Your task to perform on an android device: Set the phone to "Do not disturb". Image 0: 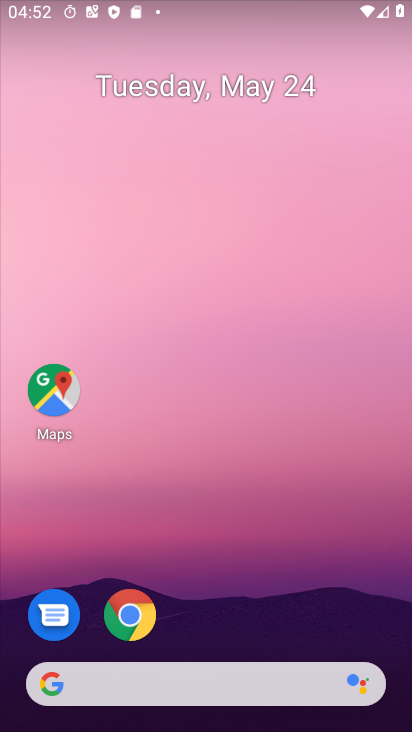
Step 0: drag from (172, 5) to (159, 378)
Your task to perform on an android device: Set the phone to "Do not disturb". Image 1: 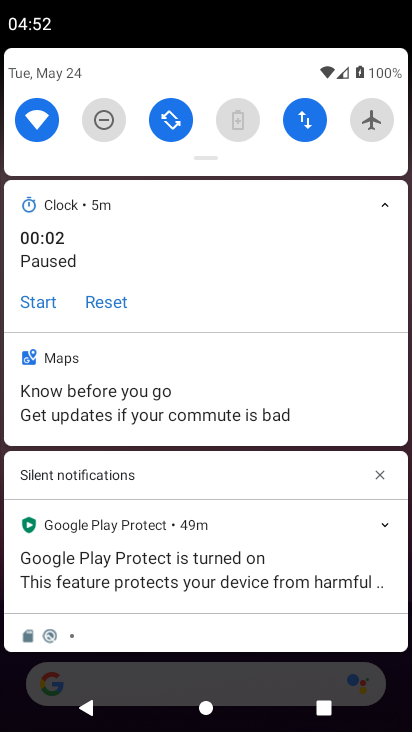
Step 1: click (99, 122)
Your task to perform on an android device: Set the phone to "Do not disturb". Image 2: 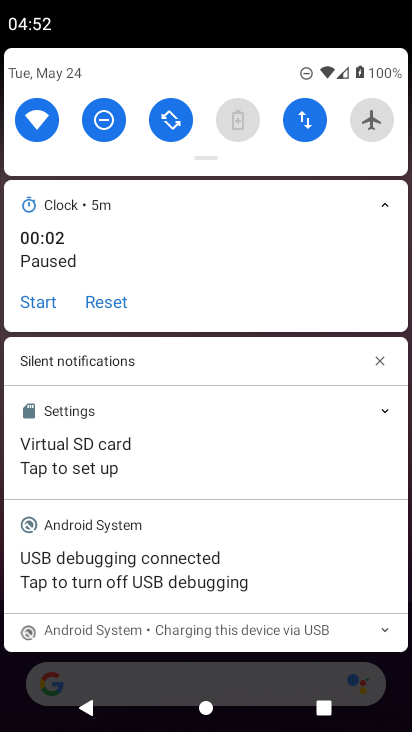
Step 2: task complete